Your task to perform on an android device: Go to privacy settings Image 0: 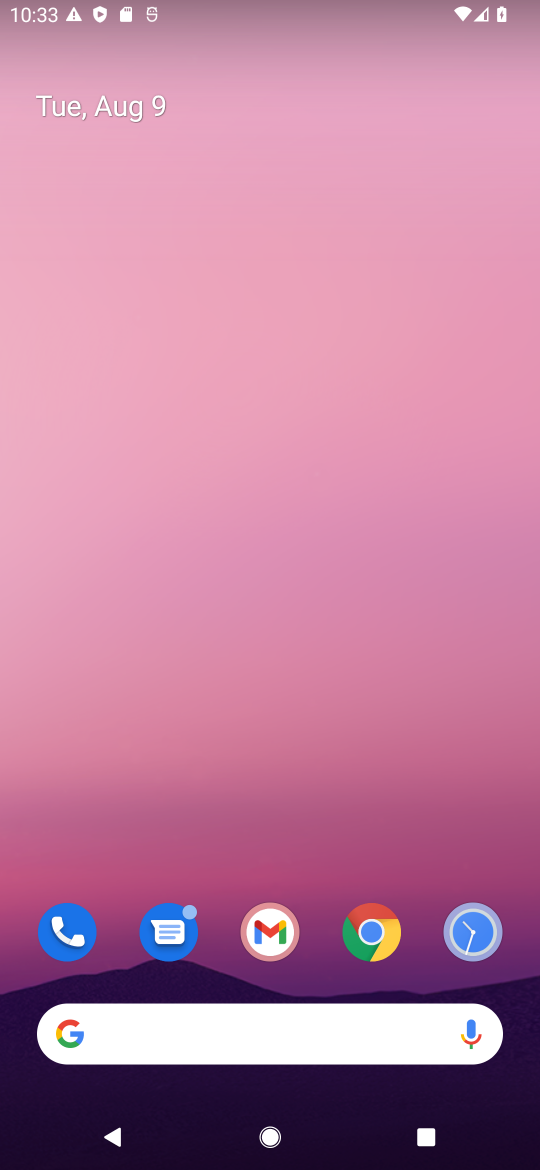
Step 0: drag from (251, 983) to (386, 0)
Your task to perform on an android device: Go to privacy settings Image 1: 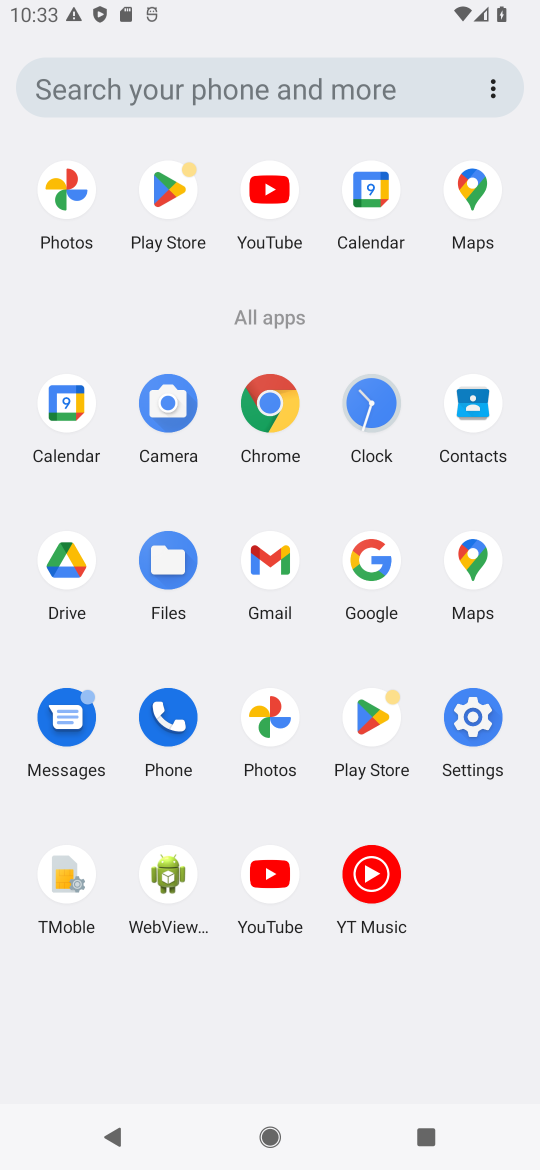
Step 1: click (468, 745)
Your task to perform on an android device: Go to privacy settings Image 2: 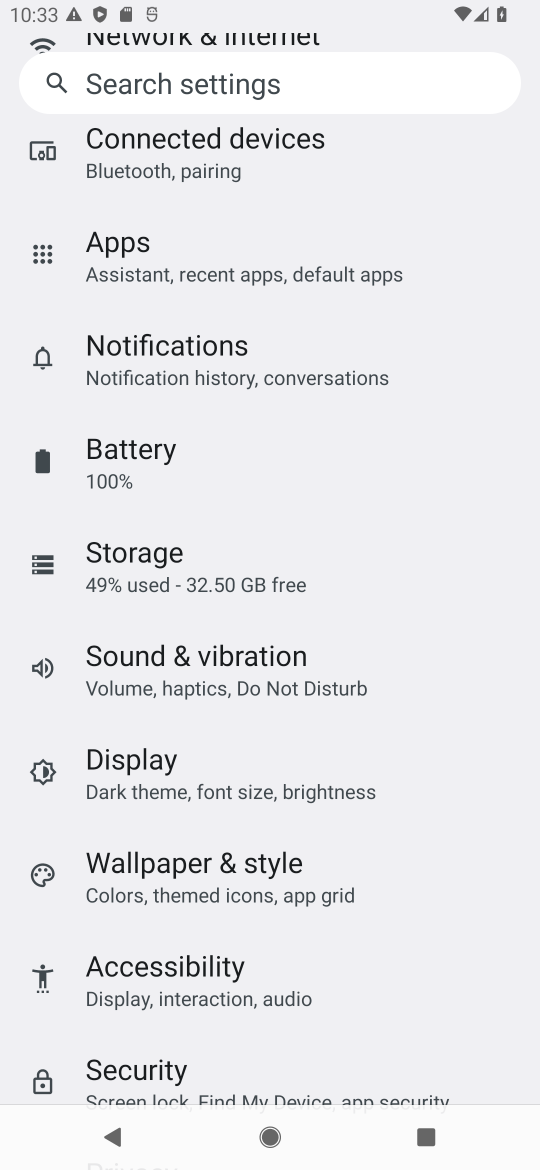
Step 2: drag from (198, 942) to (255, 377)
Your task to perform on an android device: Go to privacy settings Image 3: 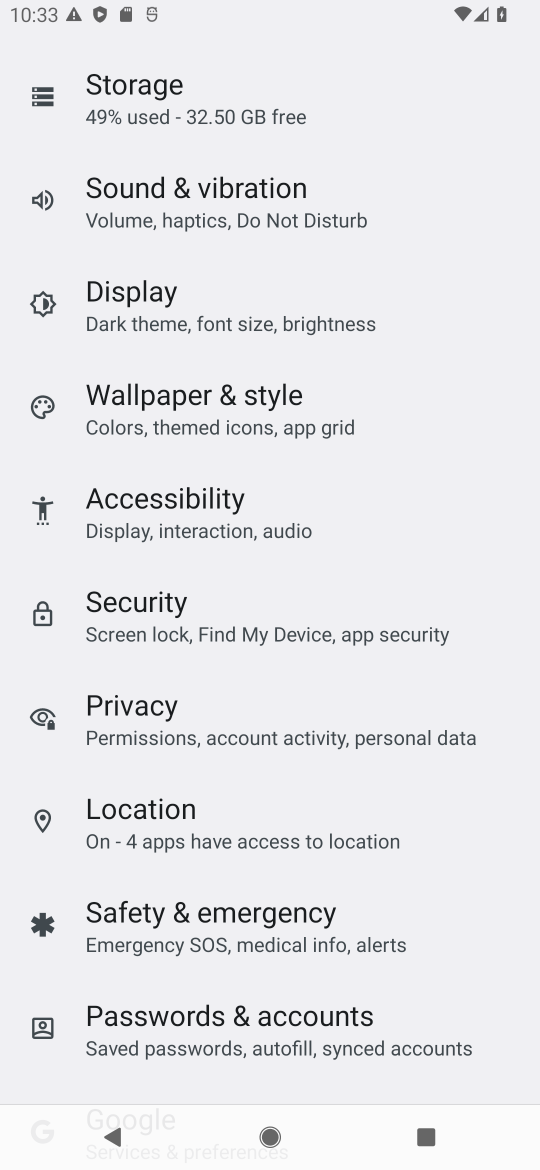
Step 3: click (144, 723)
Your task to perform on an android device: Go to privacy settings Image 4: 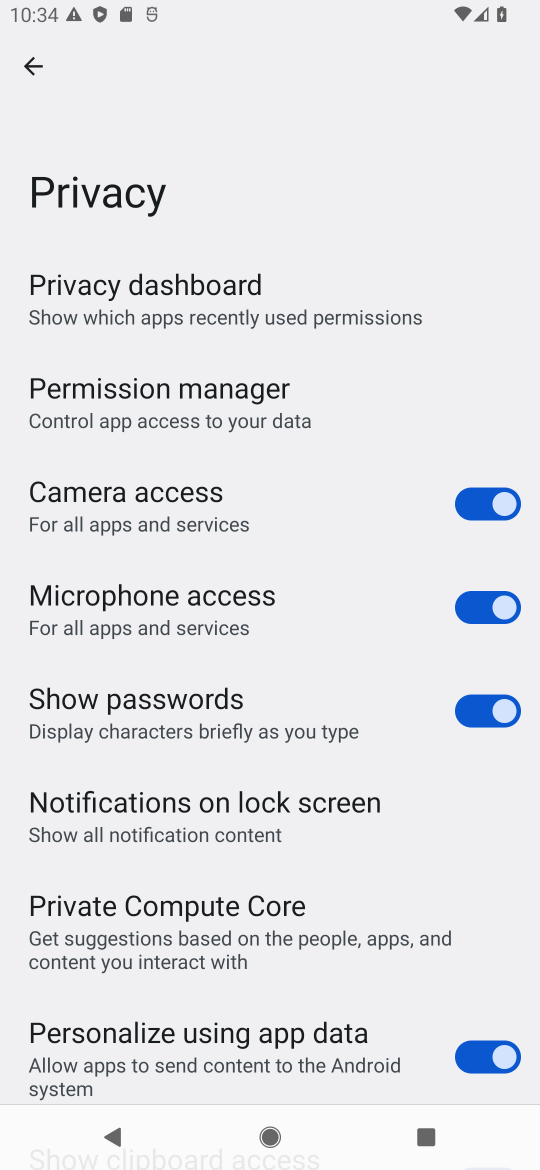
Step 4: task complete